Your task to perform on an android device: open a new tab in the chrome app Image 0: 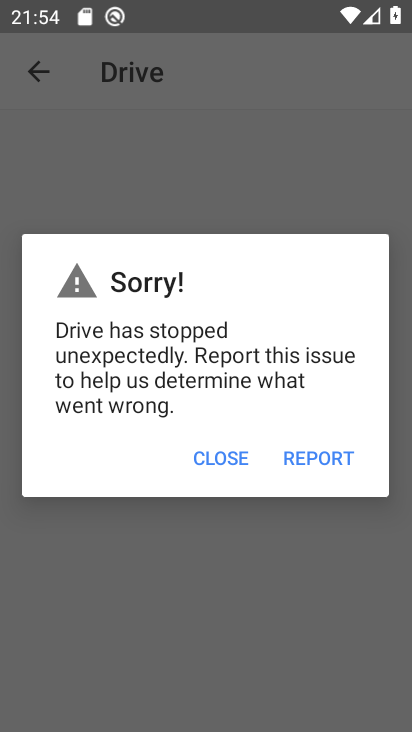
Step 0: press home button
Your task to perform on an android device: open a new tab in the chrome app Image 1: 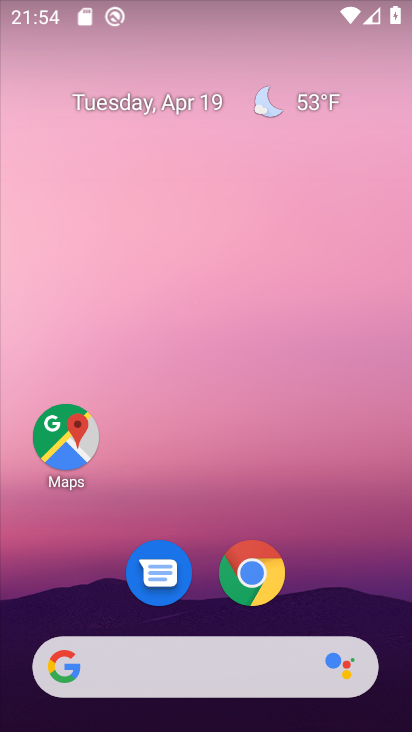
Step 1: click (249, 567)
Your task to perform on an android device: open a new tab in the chrome app Image 2: 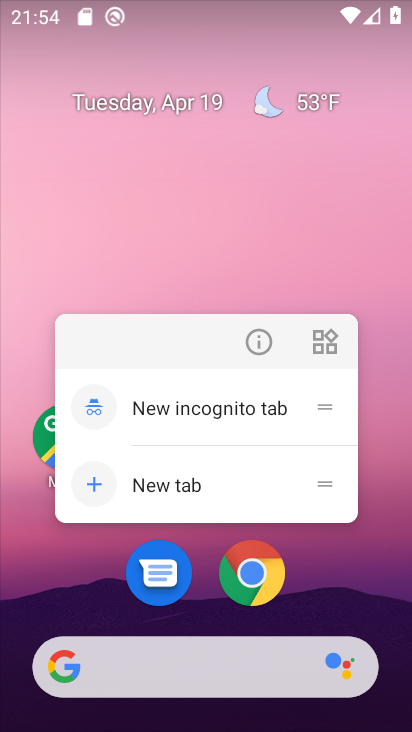
Step 2: click (307, 582)
Your task to perform on an android device: open a new tab in the chrome app Image 3: 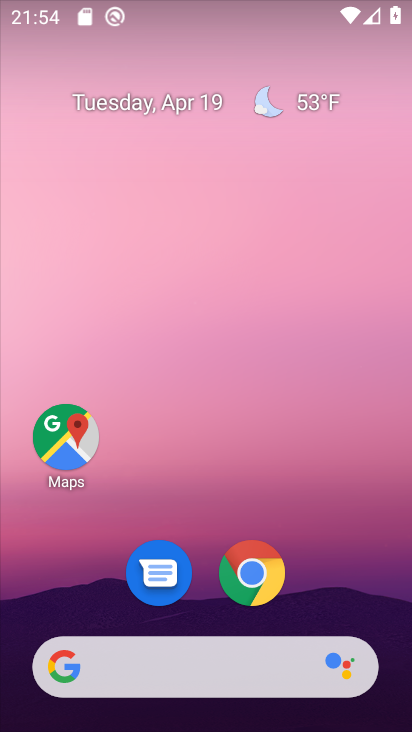
Step 3: click (252, 568)
Your task to perform on an android device: open a new tab in the chrome app Image 4: 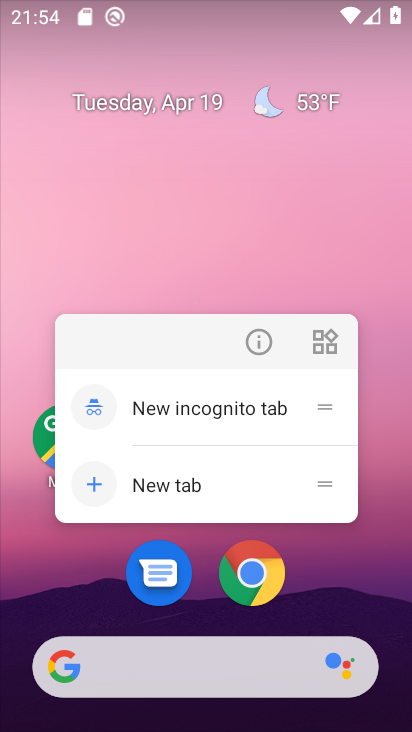
Step 4: click (252, 568)
Your task to perform on an android device: open a new tab in the chrome app Image 5: 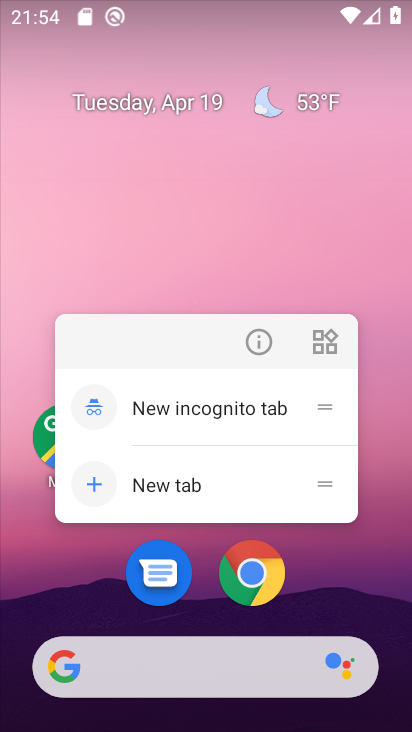
Step 5: click (307, 577)
Your task to perform on an android device: open a new tab in the chrome app Image 6: 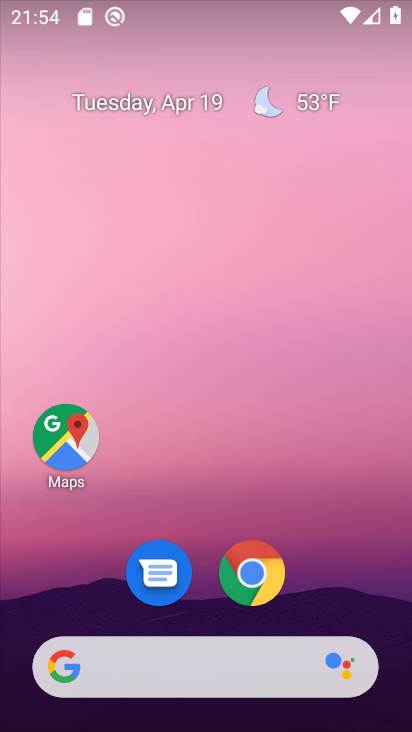
Step 6: click (216, 218)
Your task to perform on an android device: open a new tab in the chrome app Image 7: 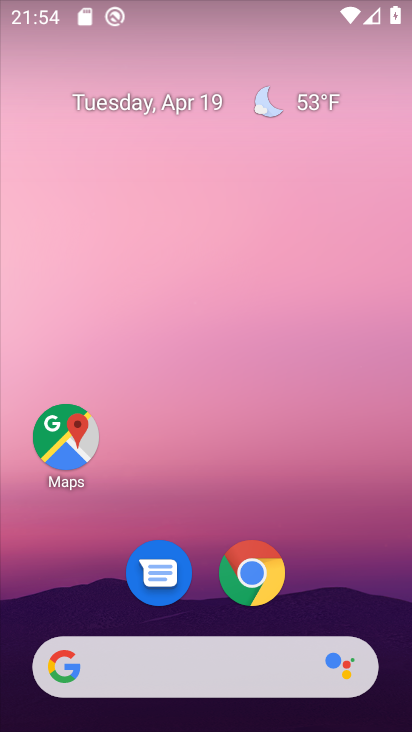
Step 7: click (252, 565)
Your task to perform on an android device: open a new tab in the chrome app Image 8: 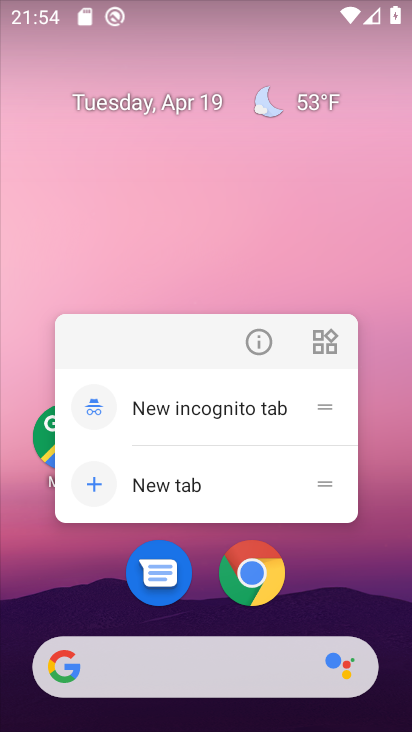
Step 8: click (314, 561)
Your task to perform on an android device: open a new tab in the chrome app Image 9: 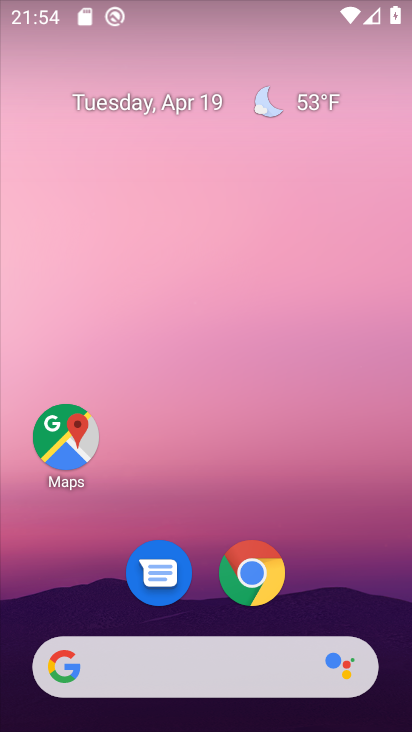
Step 9: click (251, 564)
Your task to perform on an android device: open a new tab in the chrome app Image 10: 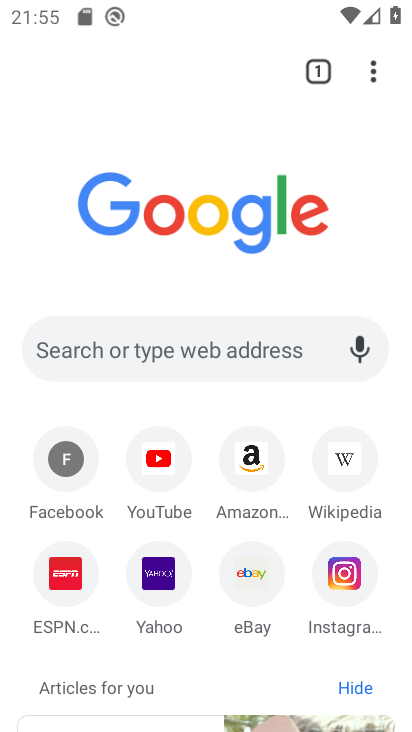
Step 10: click (318, 60)
Your task to perform on an android device: open a new tab in the chrome app Image 11: 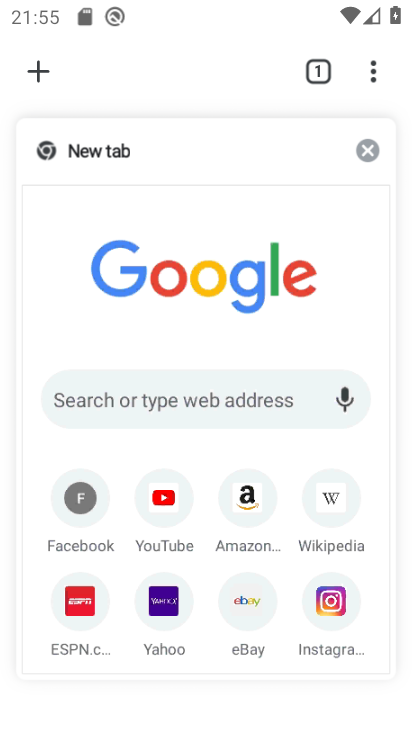
Step 11: click (39, 71)
Your task to perform on an android device: open a new tab in the chrome app Image 12: 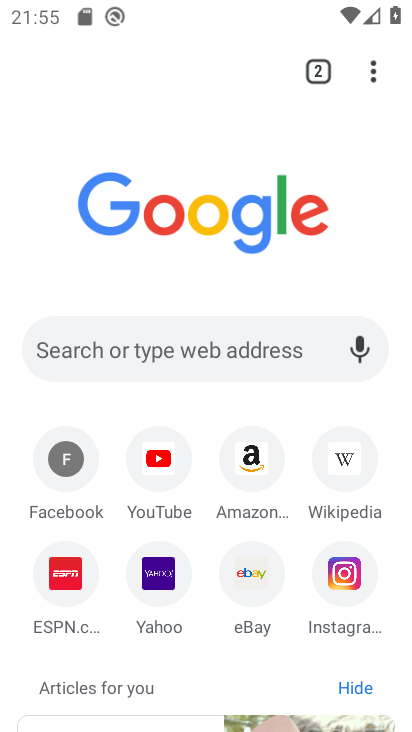
Step 12: task complete